Your task to perform on an android device: uninstall "Google Docs" Image 0: 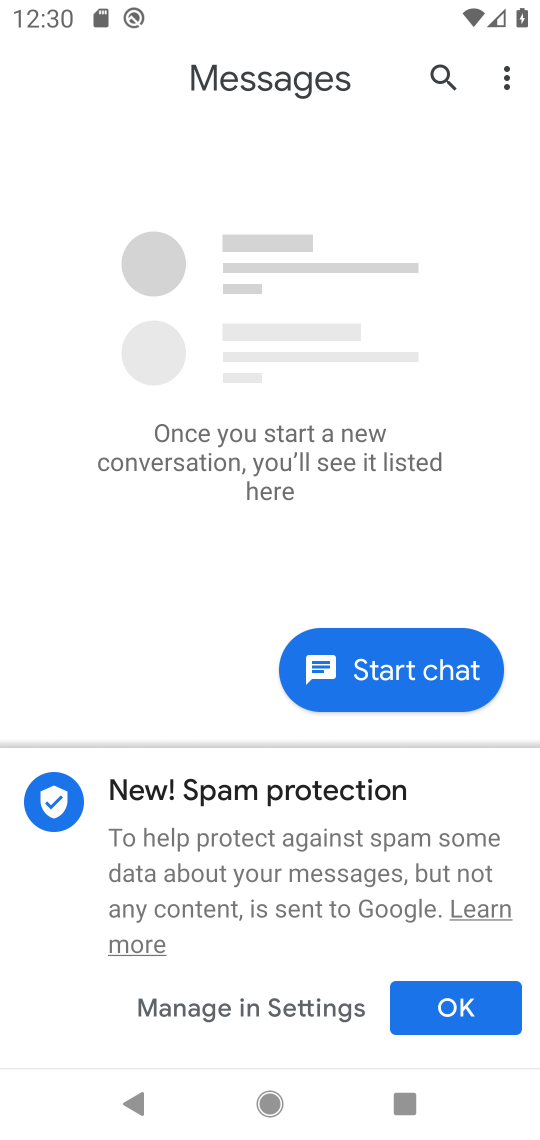
Step 0: press home button
Your task to perform on an android device: uninstall "Google Docs" Image 1: 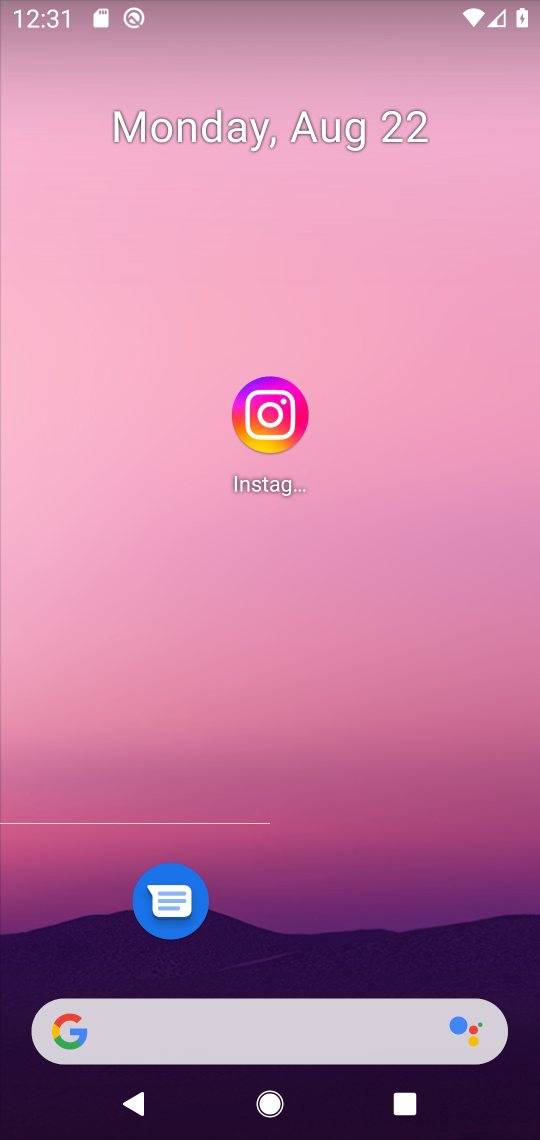
Step 1: drag from (383, 961) to (408, 205)
Your task to perform on an android device: uninstall "Google Docs" Image 2: 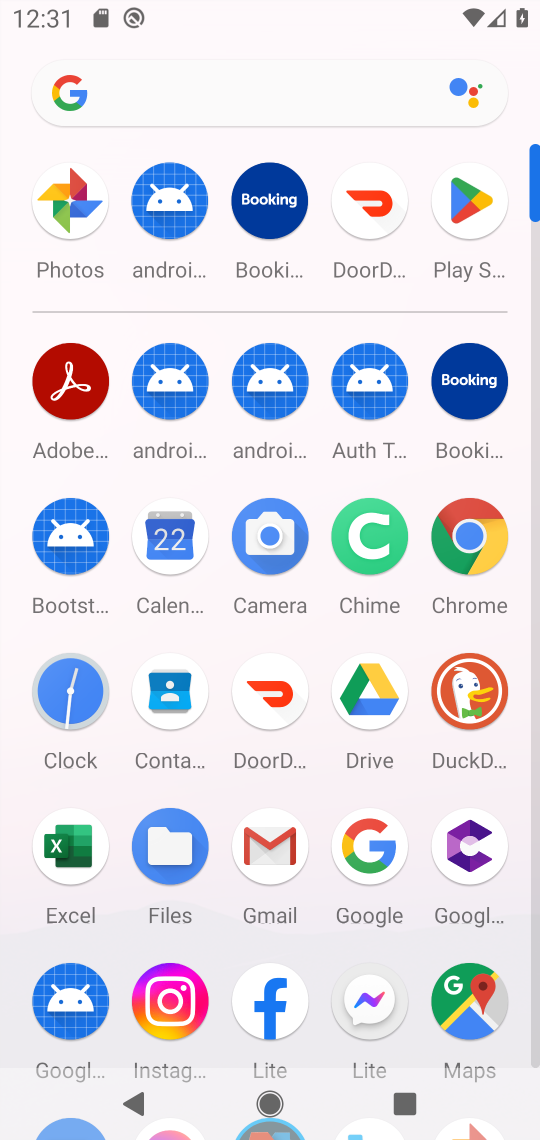
Step 2: click (456, 223)
Your task to perform on an android device: uninstall "Google Docs" Image 3: 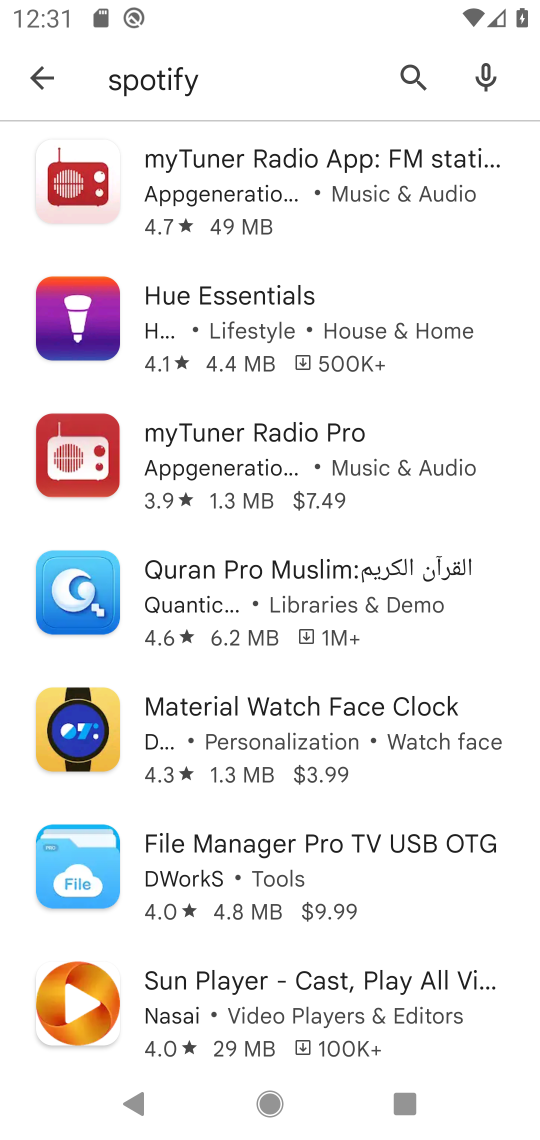
Step 3: click (403, 100)
Your task to perform on an android device: uninstall "Google Docs" Image 4: 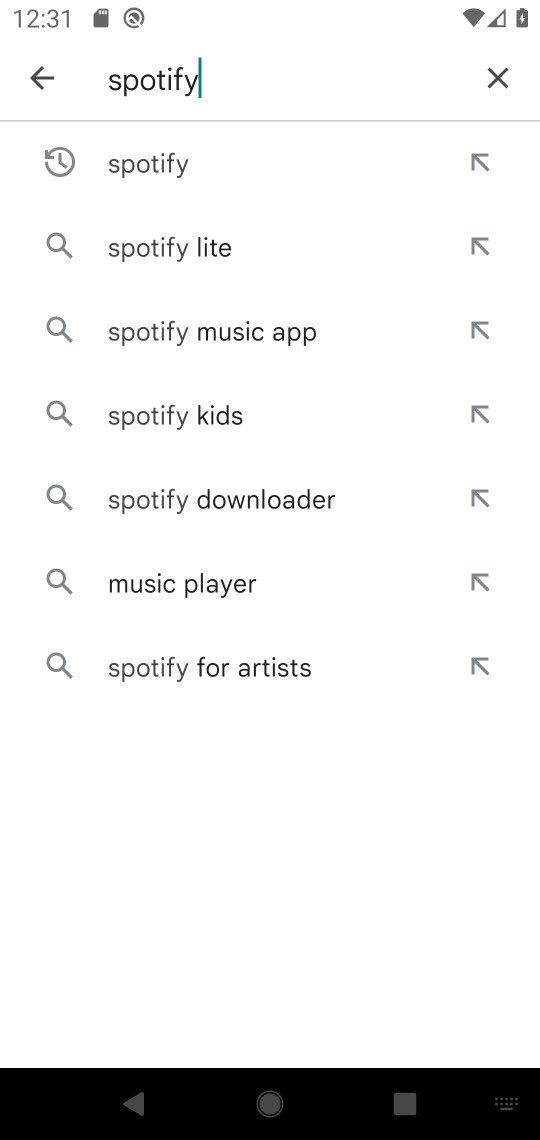
Step 4: click (490, 88)
Your task to perform on an android device: uninstall "Google Docs" Image 5: 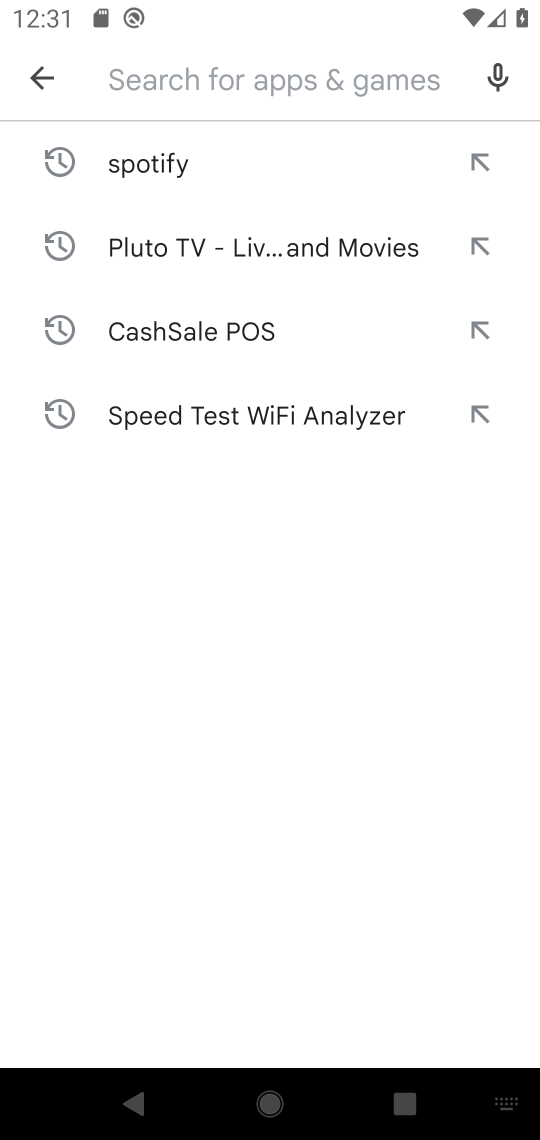
Step 5: type "google doc"
Your task to perform on an android device: uninstall "Google Docs" Image 6: 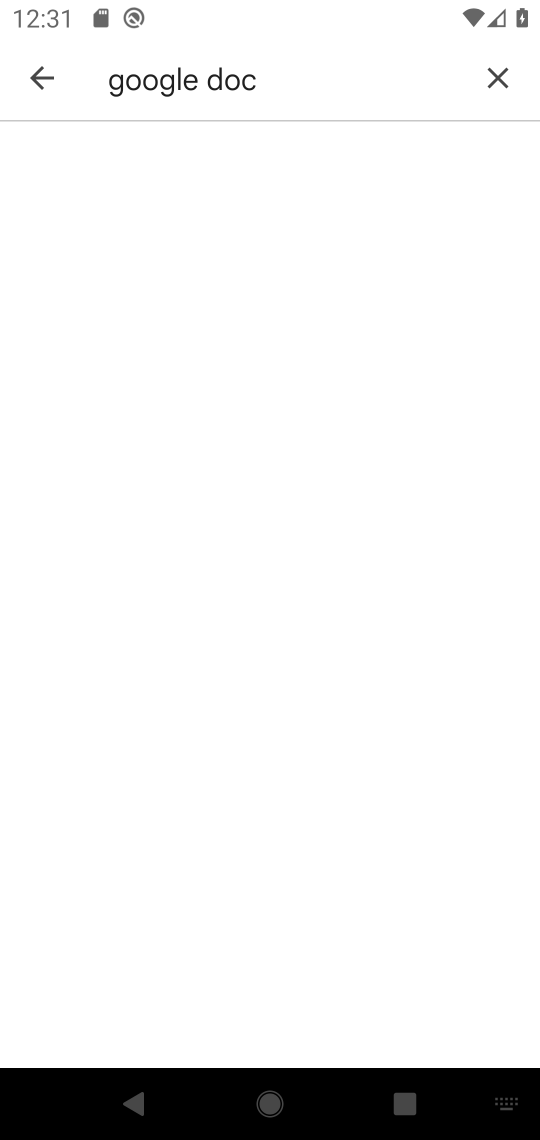
Step 6: click (177, 160)
Your task to perform on an android device: uninstall "Google Docs" Image 7: 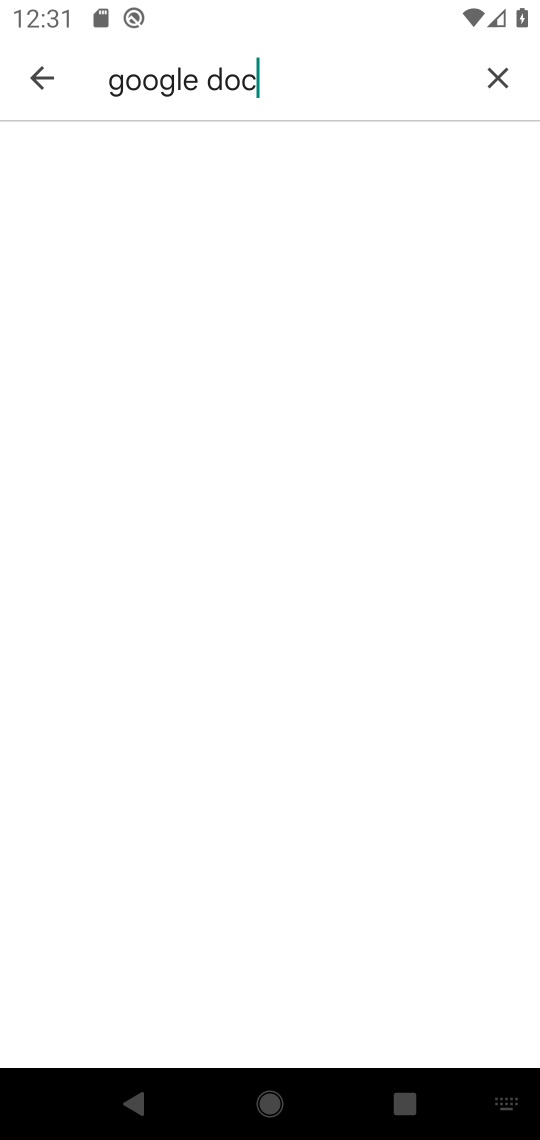
Step 7: task complete